Your task to perform on an android device: open the mobile data screen to see how much data has been used Image 0: 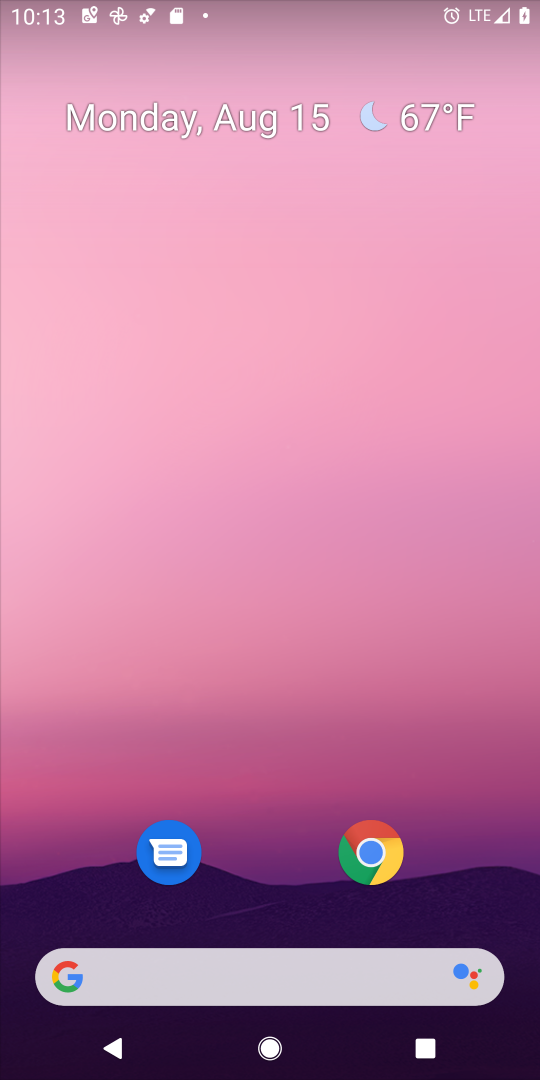
Step 0: drag from (247, 973) to (356, 27)
Your task to perform on an android device: open the mobile data screen to see how much data has been used Image 1: 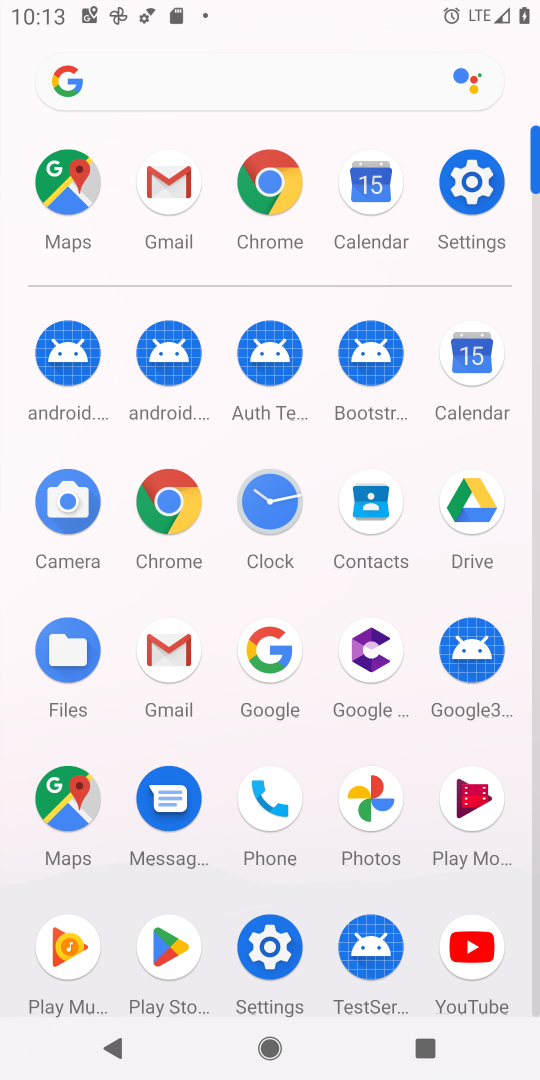
Step 1: click (469, 180)
Your task to perform on an android device: open the mobile data screen to see how much data has been used Image 2: 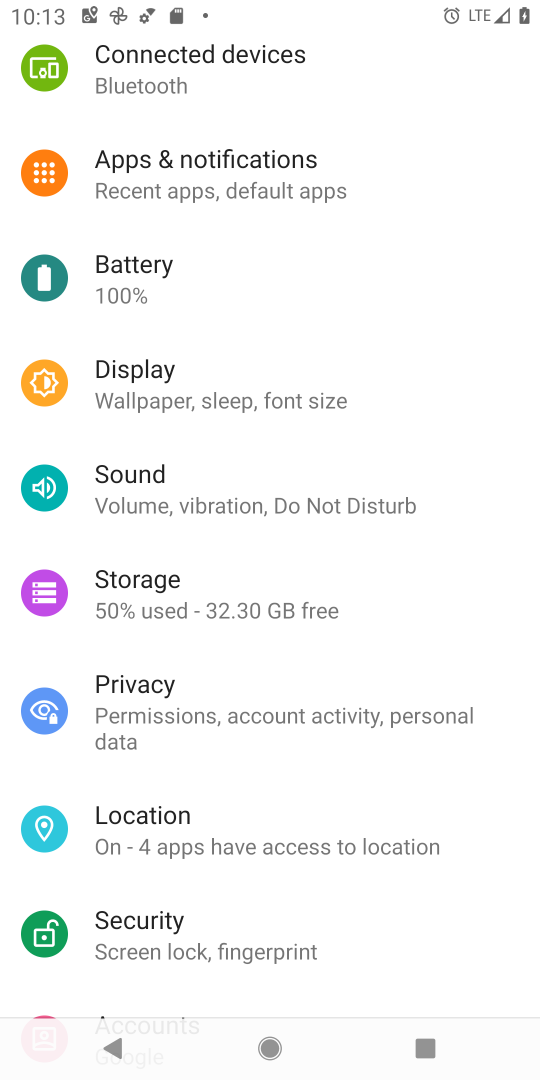
Step 2: drag from (323, 193) to (303, 508)
Your task to perform on an android device: open the mobile data screen to see how much data has been used Image 3: 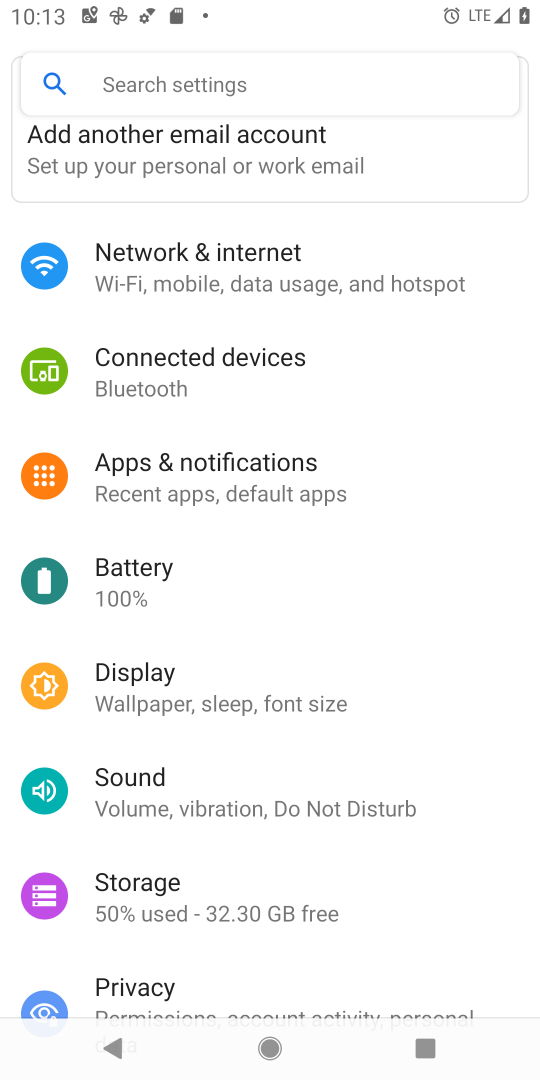
Step 3: click (239, 281)
Your task to perform on an android device: open the mobile data screen to see how much data has been used Image 4: 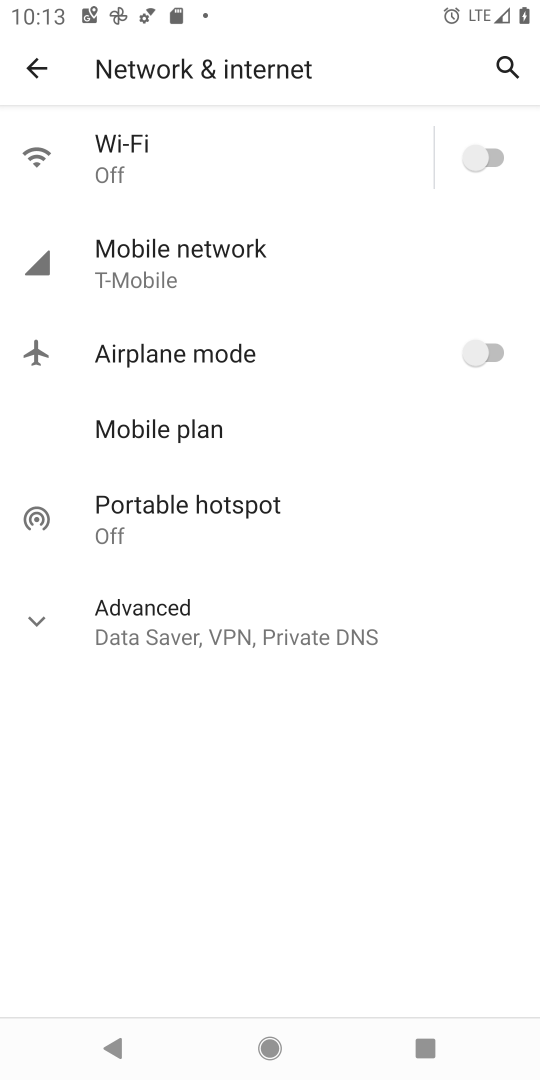
Step 4: click (196, 262)
Your task to perform on an android device: open the mobile data screen to see how much data has been used Image 5: 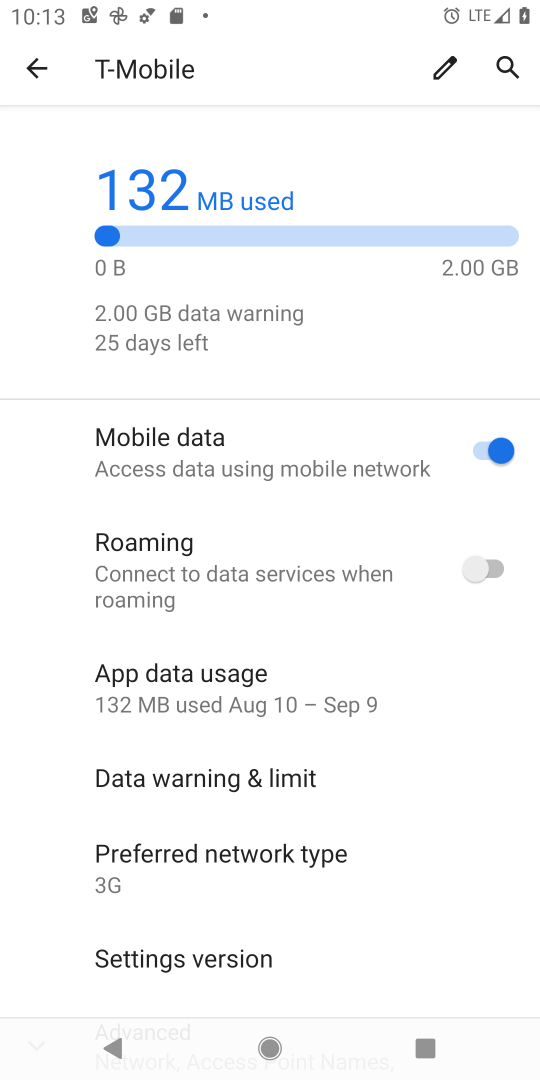
Step 5: task complete